Your task to perform on an android device: turn pop-ups on in chrome Image 0: 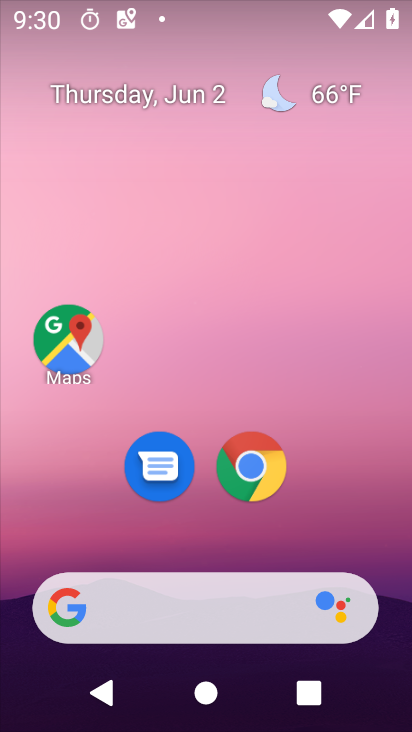
Step 0: press home button
Your task to perform on an android device: turn pop-ups on in chrome Image 1: 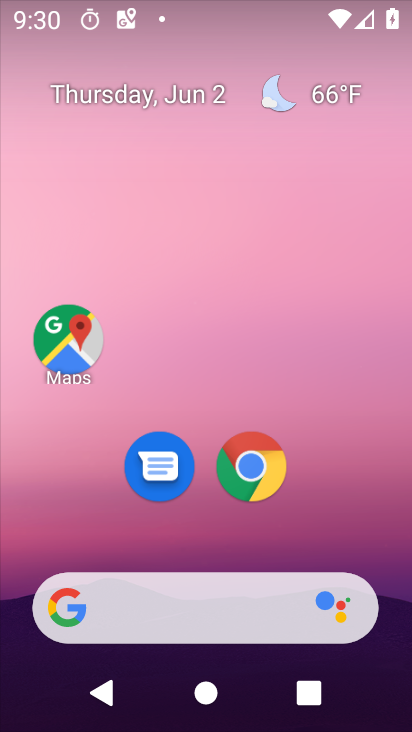
Step 1: click (268, 481)
Your task to perform on an android device: turn pop-ups on in chrome Image 2: 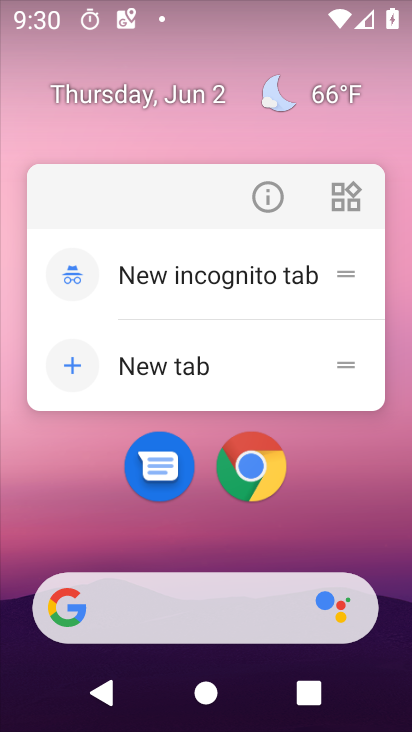
Step 2: click (238, 463)
Your task to perform on an android device: turn pop-ups on in chrome Image 3: 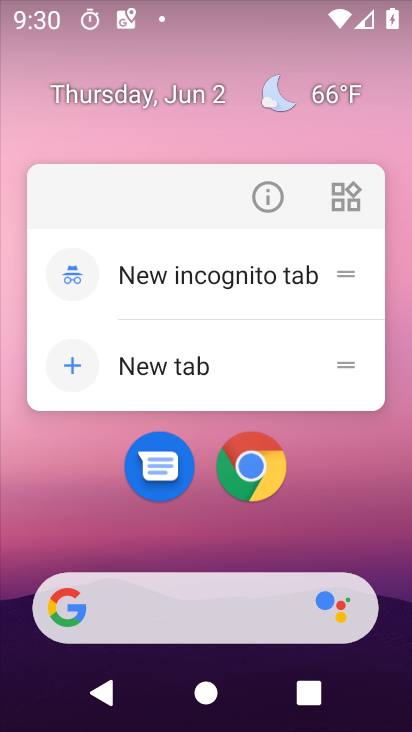
Step 3: click (241, 449)
Your task to perform on an android device: turn pop-ups on in chrome Image 4: 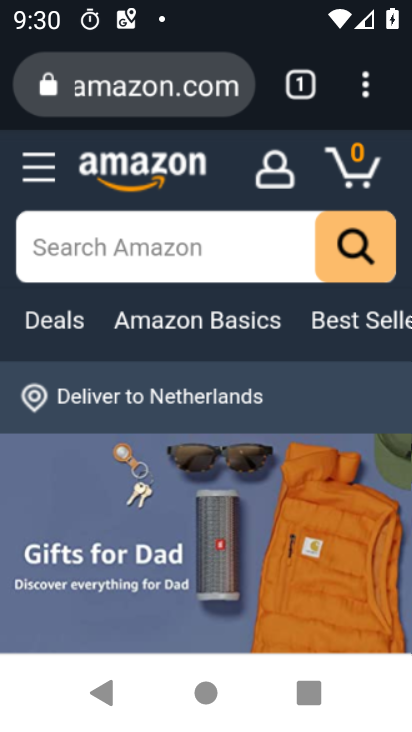
Step 4: click (363, 92)
Your task to perform on an android device: turn pop-ups on in chrome Image 5: 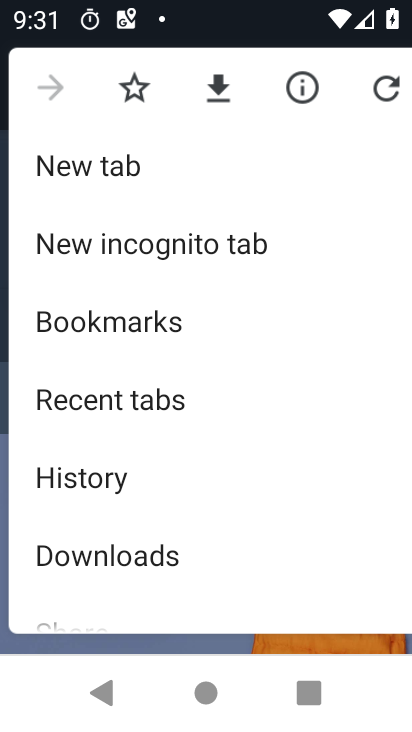
Step 5: drag from (0, 631) to (238, 168)
Your task to perform on an android device: turn pop-ups on in chrome Image 6: 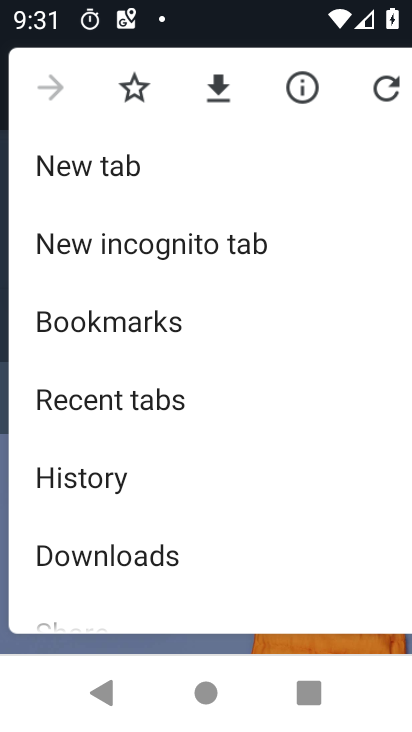
Step 6: drag from (35, 467) to (226, 197)
Your task to perform on an android device: turn pop-ups on in chrome Image 7: 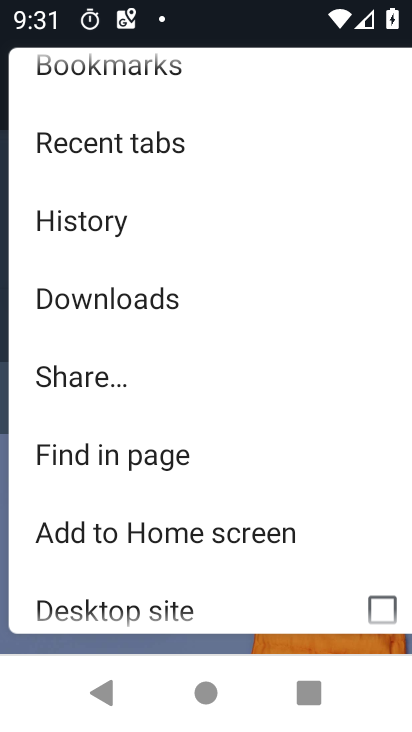
Step 7: drag from (40, 528) to (218, 261)
Your task to perform on an android device: turn pop-ups on in chrome Image 8: 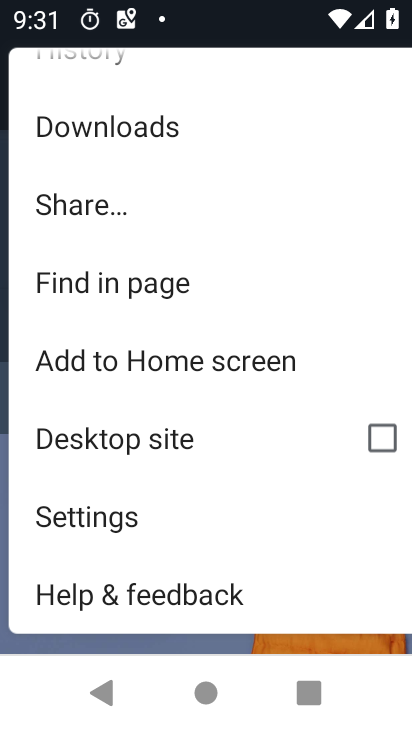
Step 8: click (79, 514)
Your task to perform on an android device: turn pop-ups on in chrome Image 9: 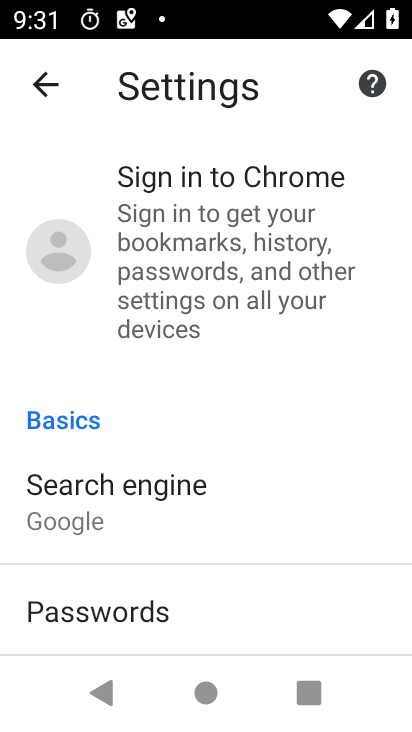
Step 9: drag from (11, 542) to (180, 246)
Your task to perform on an android device: turn pop-ups on in chrome Image 10: 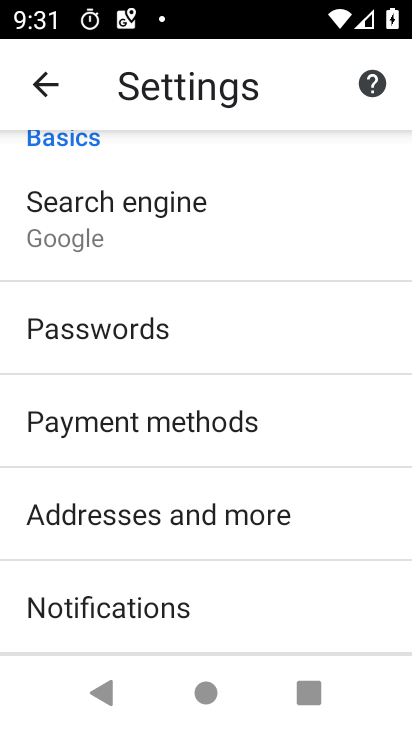
Step 10: drag from (36, 502) to (250, 173)
Your task to perform on an android device: turn pop-ups on in chrome Image 11: 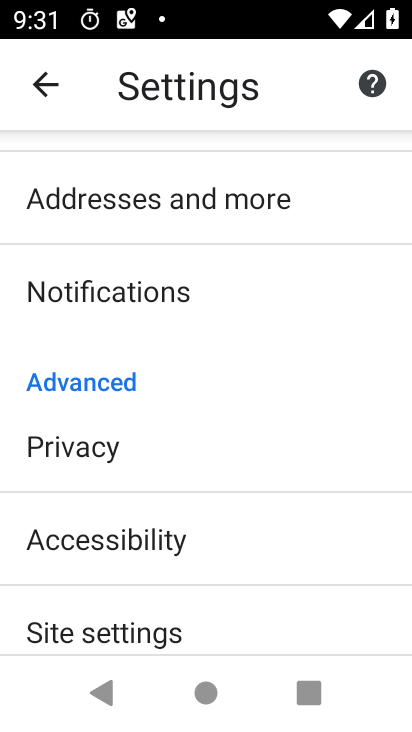
Step 11: click (69, 616)
Your task to perform on an android device: turn pop-ups on in chrome Image 12: 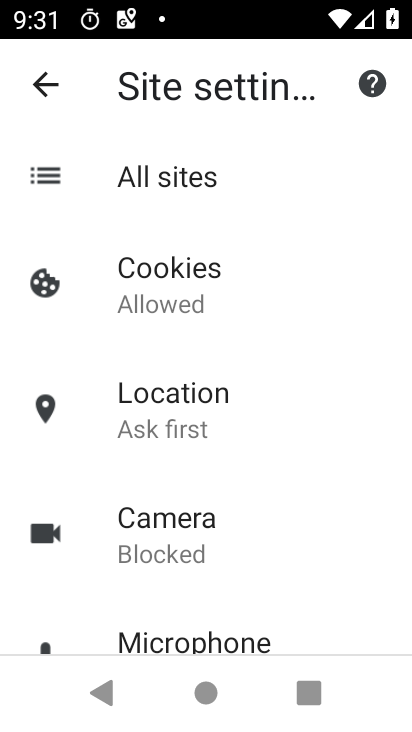
Step 12: drag from (9, 569) to (204, 264)
Your task to perform on an android device: turn pop-ups on in chrome Image 13: 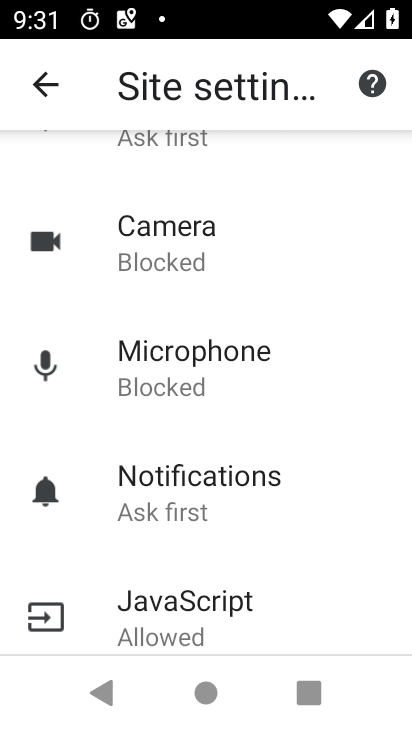
Step 13: drag from (14, 495) to (186, 272)
Your task to perform on an android device: turn pop-ups on in chrome Image 14: 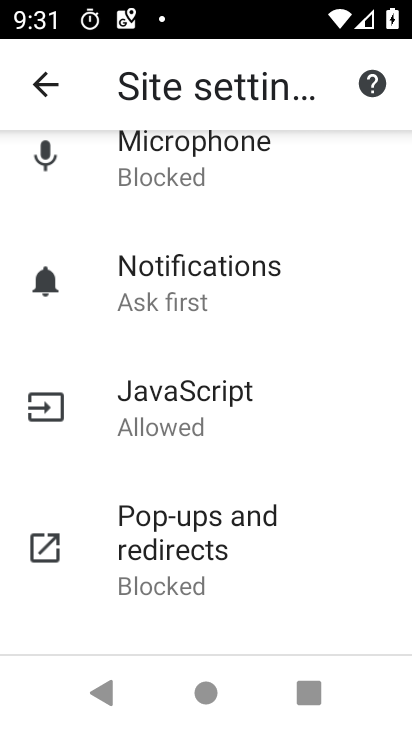
Step 14: click (104, 529)
Your task to perform on an android device: turn pop-ups on in chrome Image 15: 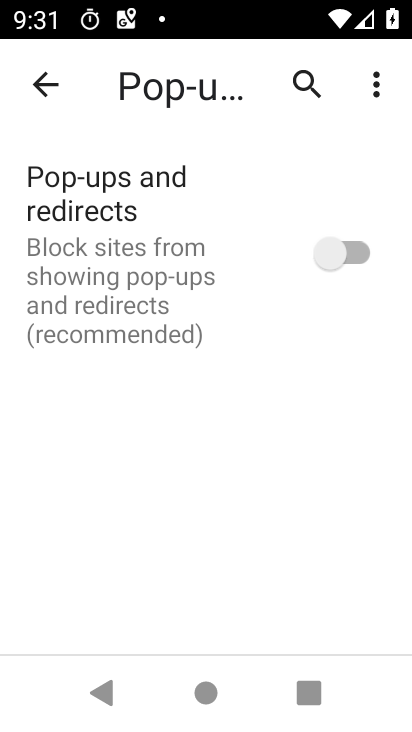
Step 15: click (325, 260)
Your task to perform on an android device: turn pop-ups on in chrome Image 16: 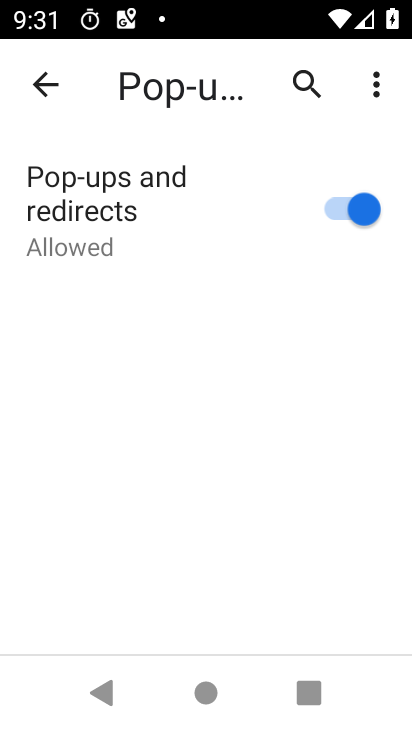
Step 16: task complete